Your task to perform on an android device: Open the stopwatch Image 0: 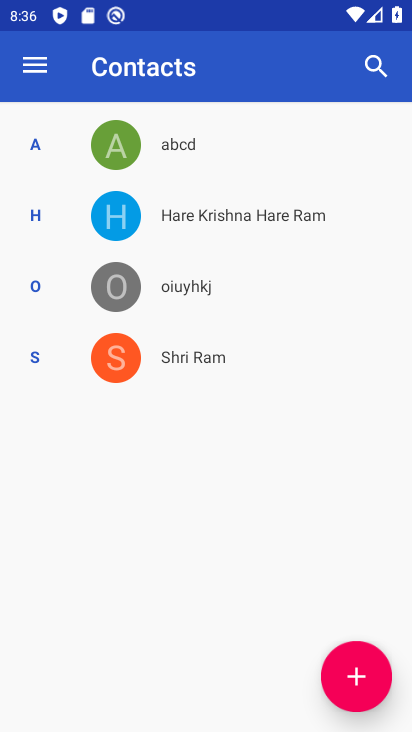
Step 0: press home button
Your task to perform on an android device: Open the stopwatch Image 1: 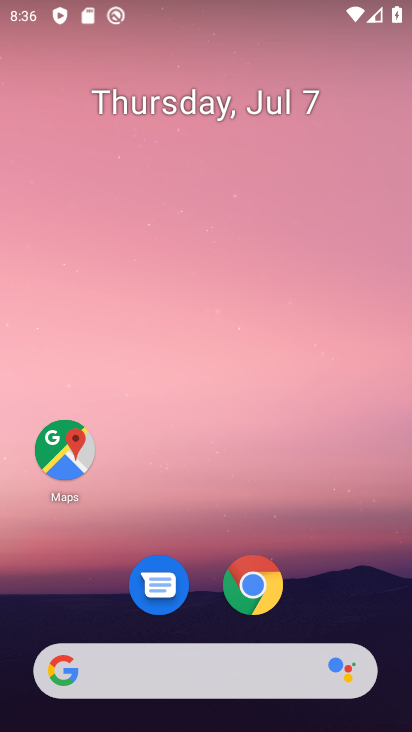
Step 1: drag from (196, 421) to (219, 12)
Your task to perform on an android device: Open the stopwatch Image 2: 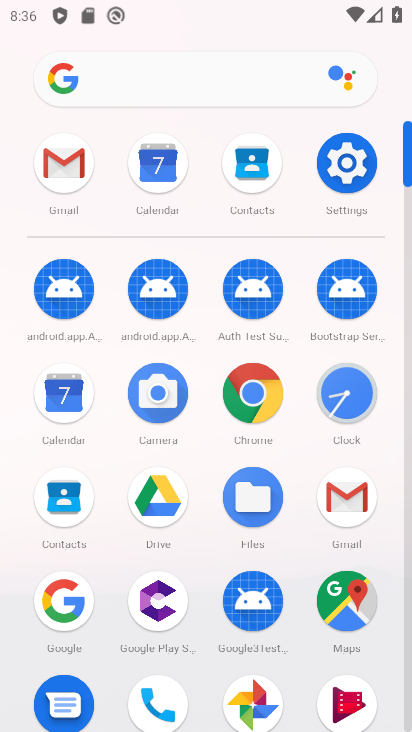
Step 2: click (351, 394)
Your task to perform on an android device: Open the stopwatch Image 3: 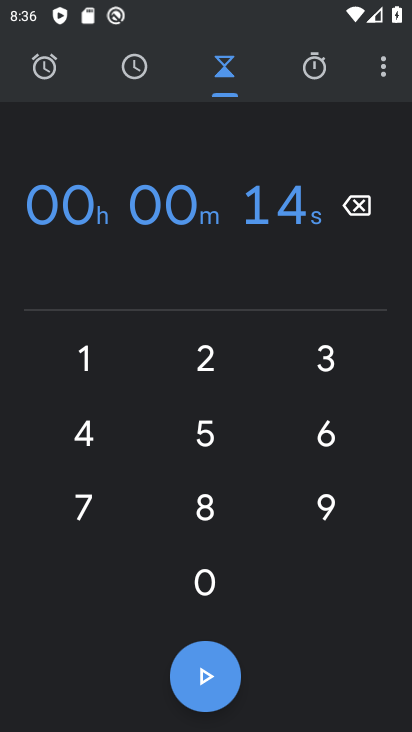
Step 3: click (323, 70)
Your task to perform on an android device: Open the stopwatch Image 4: 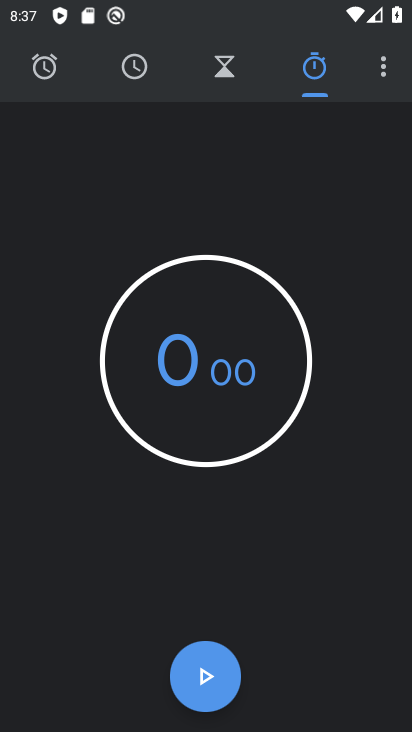
Step 4: task complete